Your task to perform on an android device: Go to Yahoo.com Image 0: 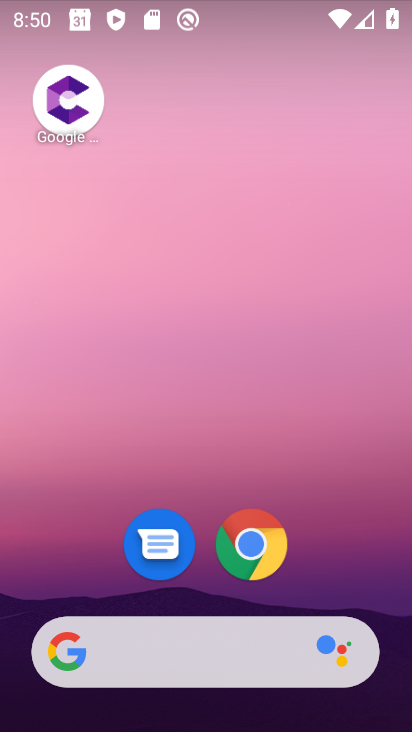
Step 0: click (256, 542)
Your task to perform on an android device: Go to Yahoo.com Image 1: 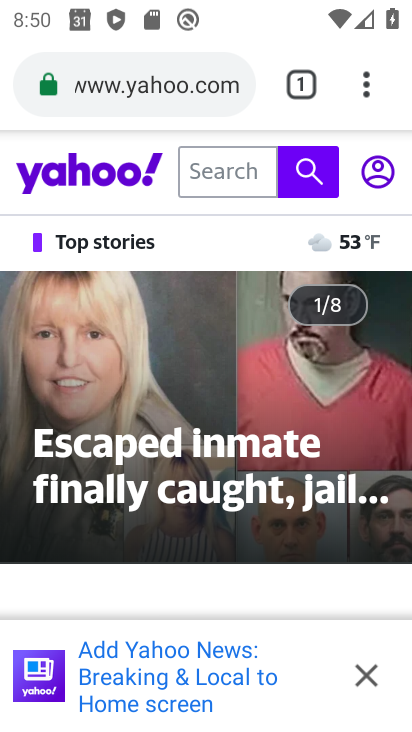
Step 1: task complete